Your task to perform on an android device: clear all cookies in the chrome app Image 0: 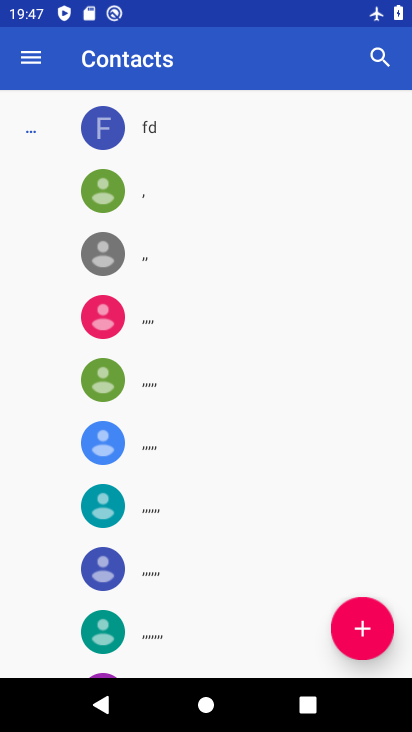
Step 0: press home button
Your task to perform on an android device: clear all cookies in the chrome app Image 1: 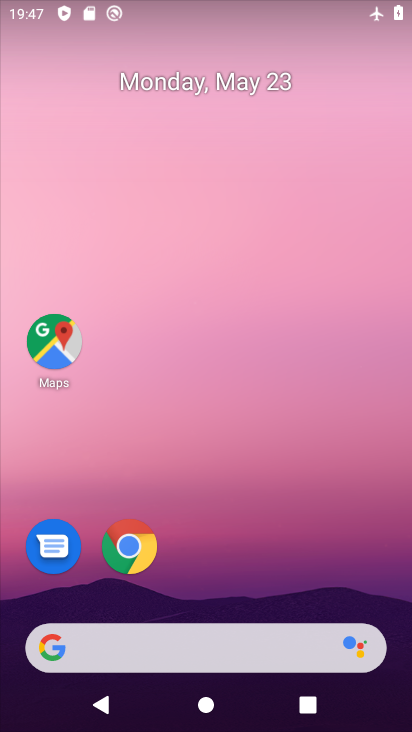
Step 1: drag from (383, 563) to (369, 240)
Your task to perform on an android device: clear all cookies in the chrome app Image 2: 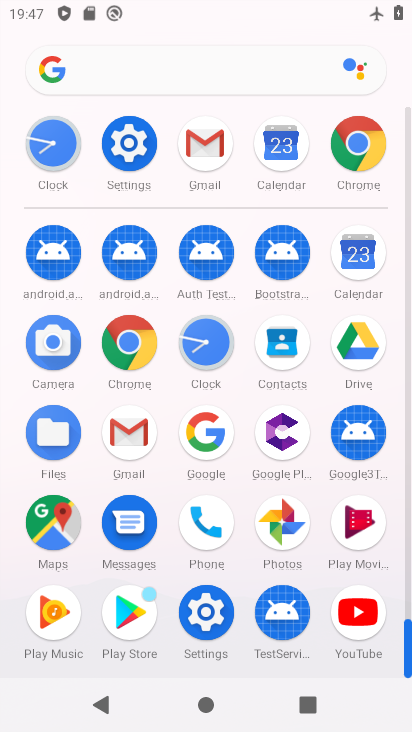
Step 2: click (148, 373)
Your task to perform on an android device: clear all cookies in the chrome app Image 3: 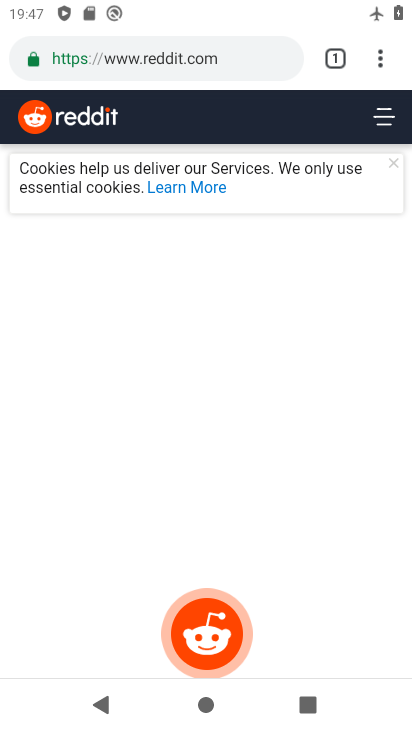
Step 3: click (385, 66)
Your task to perform on an android device: clear all cookies in the chrome app Image 4: 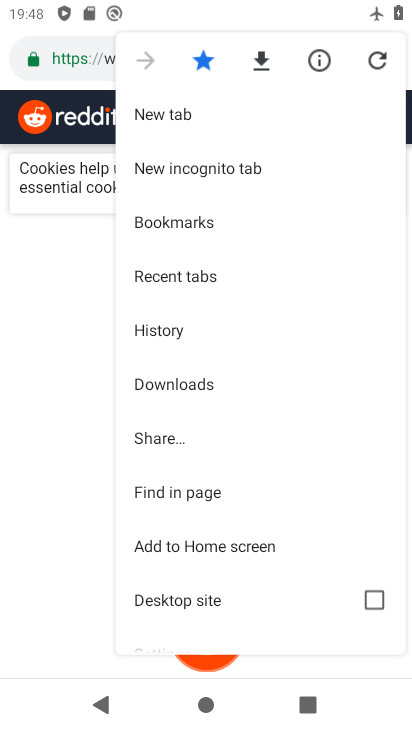
Step 4: drag from (321, 459) to (330, 377)
Your task to perform on an android device: clear all cookies in the chrome app Image 5: 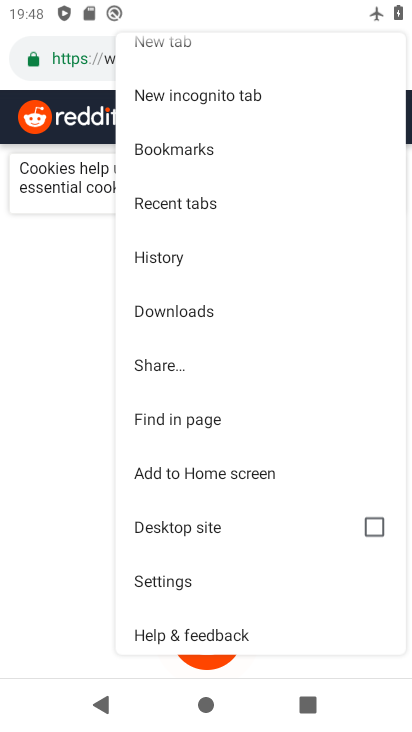
Step 5: drag from (348, 467) to (346, 375)
Your task to perform on an android device: clear all cookies in the chrome app Image 6: 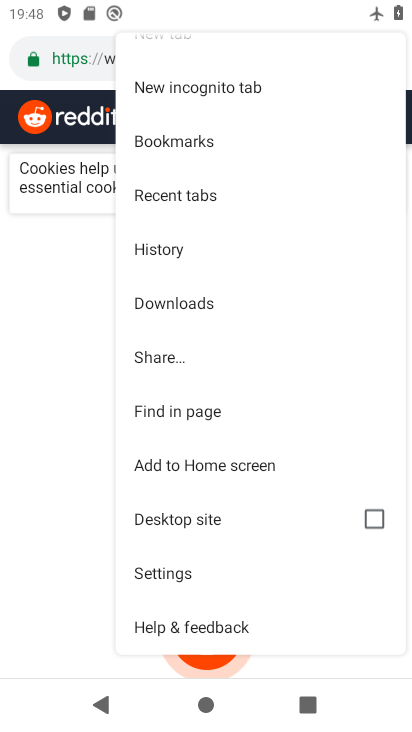
Step 6: click (252, 568)
Your task to perform on an android device: clear all cookies in the chrome app Image 7: 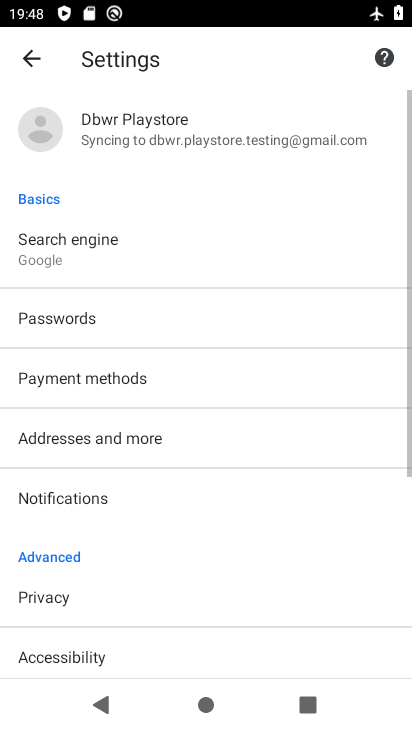
Step 7: drag from (269, 557) to (280, 490)
Your task to perform on an android device: clear all cookies in the chrome app Image 8: 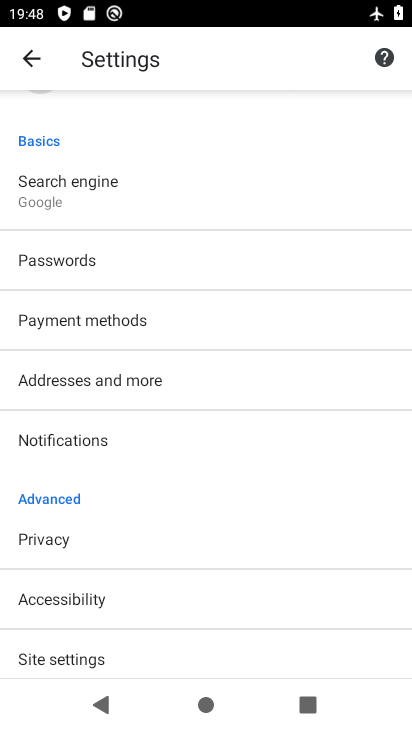
Step 8: drag from (324, 621) to (332, 505)
Your task to perform on an android device: clear all cookies in the chrome app Image 9: 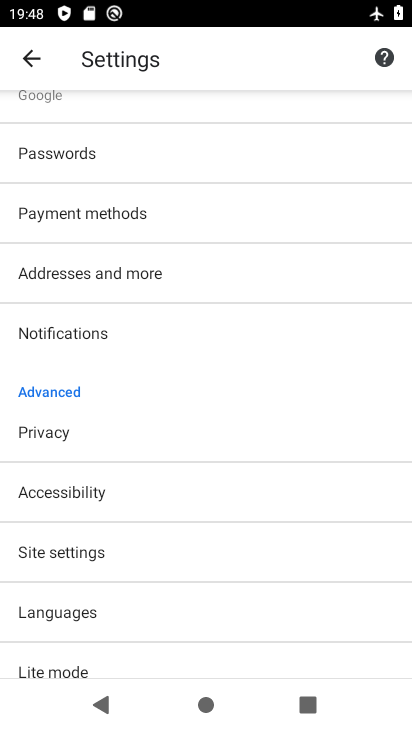
Step 9: drag from (321, 529) to (326, 447)
Your task to perform on an android device: clear all cookies in the chrome app Image 10: 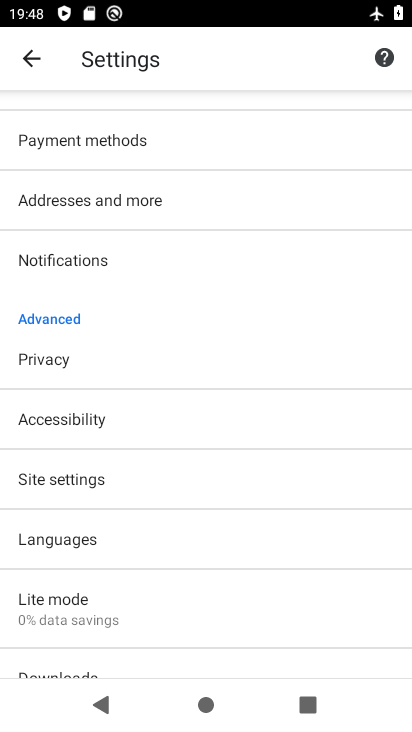
Step 10: drag from (313, 611) to (324, 459)
Your task to perform on an android device: clear all cookies in the chrome app Image 11: 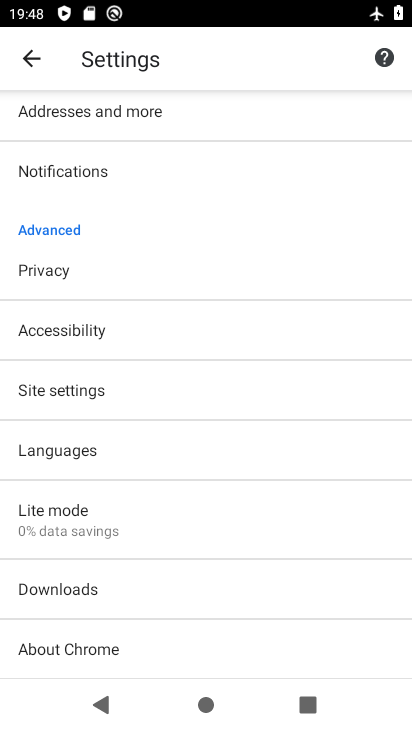
Step 11: click (181, 279)
Your task to perform on an android device: clear all cookies in the chrome app Image 12: 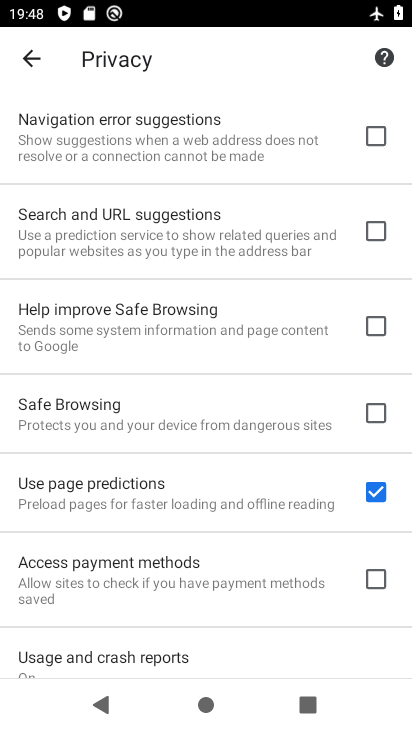
Step 12: drag from (292, 611) to (295, 508)
Your task to perform on an android device: clear all cookies in the chrome app Image 13: 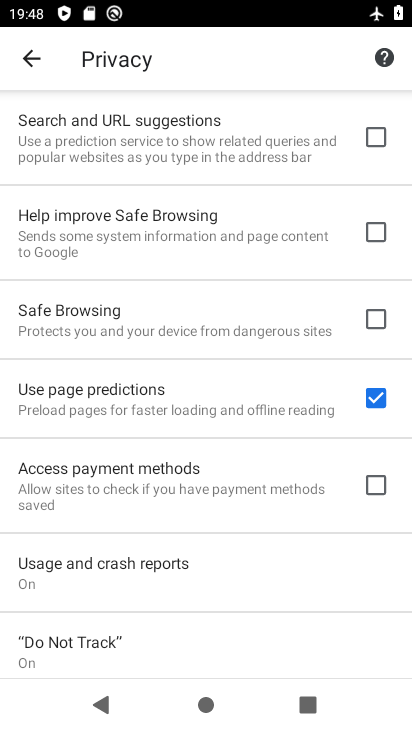
Step 13: drag from (283, 565) to (276, 484)
Your task to perform on an android device: clear all cookies in the chrome app Image 14: 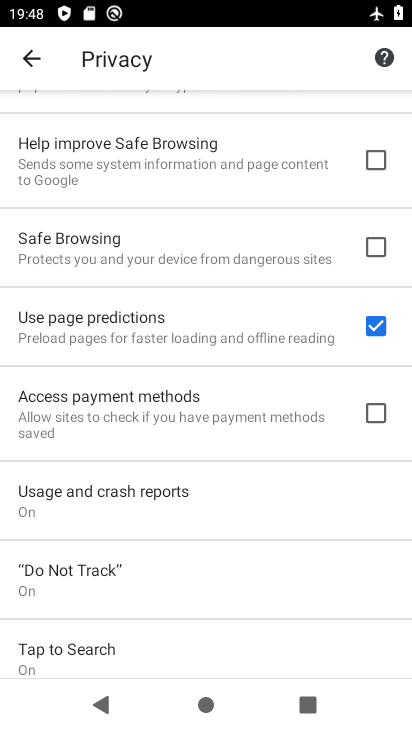
Step 14: drag from (280, 588) to (278, 438)
Your task to perform on an android device: clear all cookies in the chrome app Image 15: 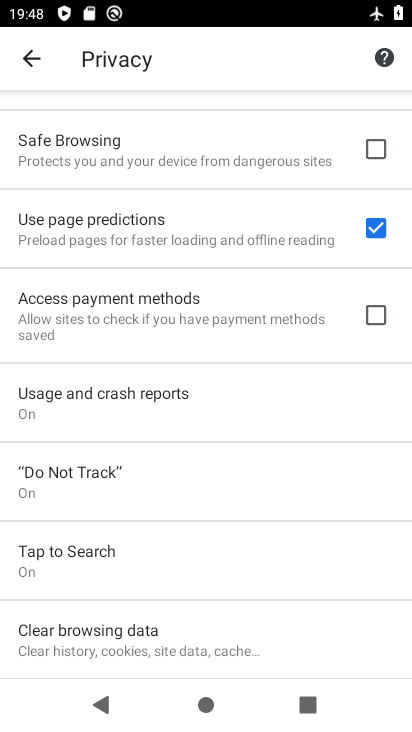
Step 15: drag from (294, 589) to (280, 463)
Your task to perform on an android device: clear all cookies in the chrome app Image 16: 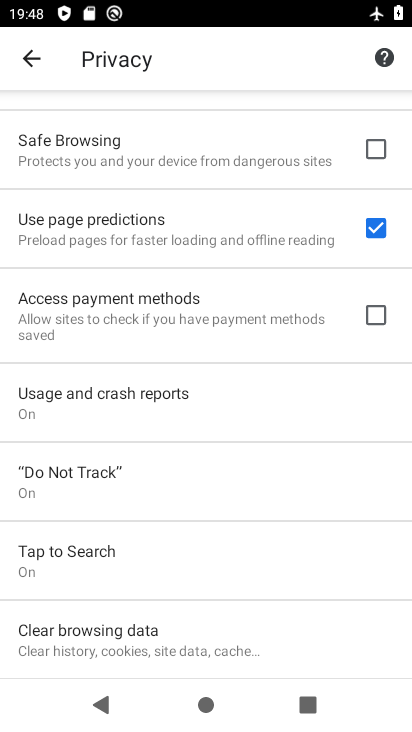
Step 16: drag from (299, 333) to (293, 465)
Your task to perform on an android device: clear all cookies in the chrome app Image 17: 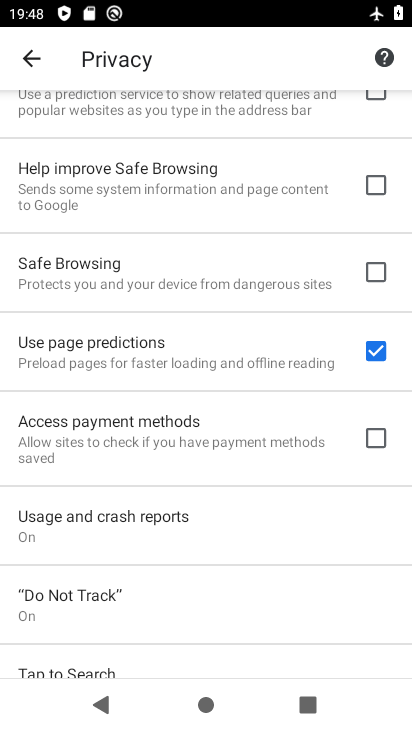
Step 17: drag from (313, 296) to (296, 401)
Your task to perform on an android device: clear all cookies in the chrome app Image 18: 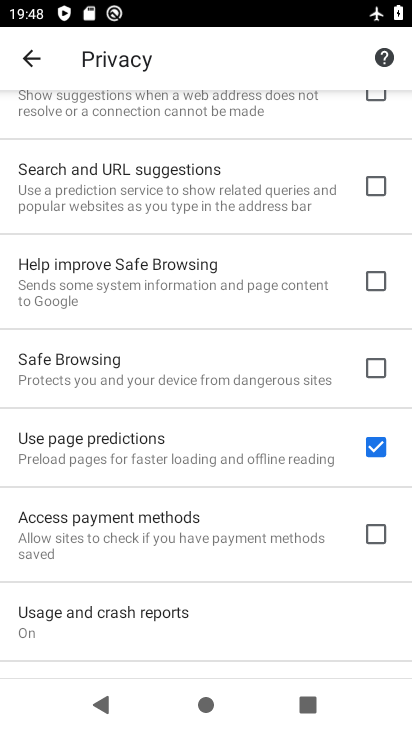
Step 18: drag from (277, 604) to (261, 317)
Your task to perform on an android device: clear all cookies in the chrome app Image 19: 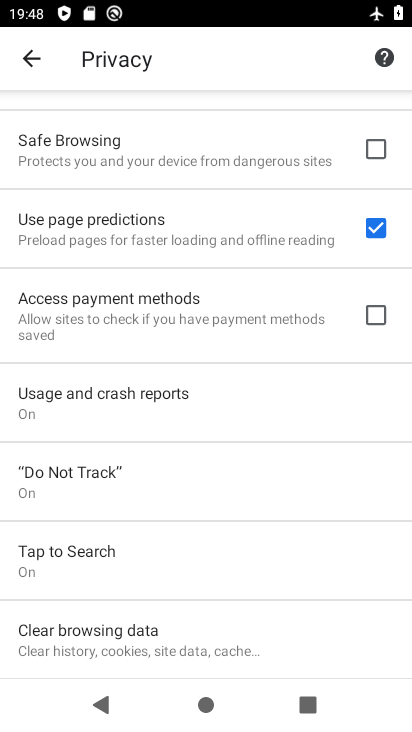
Step 19: click (261, 630)
Your task to perform on an android device: clear all cookies in the chrome app Image 20: 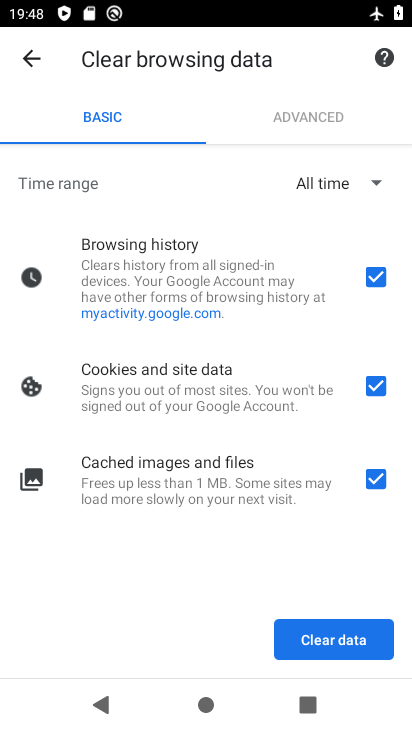
Step 20: click (316, 642)
Your task to perform on an android device: clear all cookies in the chrome app Image 21: 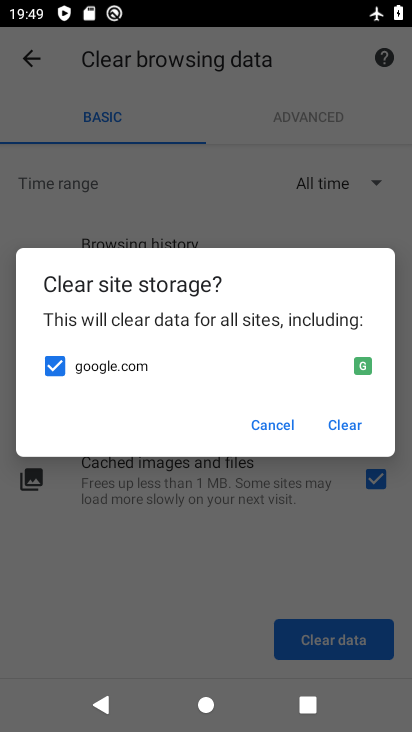
Step 21: click (360, 433)
Your task to perform on an android device: clear all cookies in the chrome app Image 22: 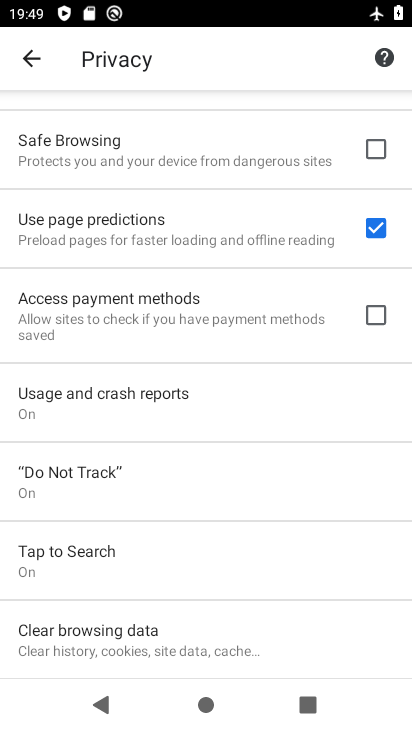
Step 22: task complete